Your task to perform on an android device: check data usage Image 0: 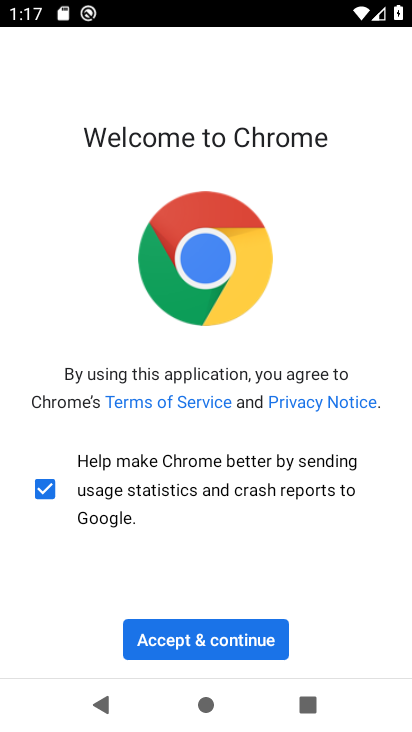
Step 0: press home button
Your task to perform on an android device: check data usage Image 1: 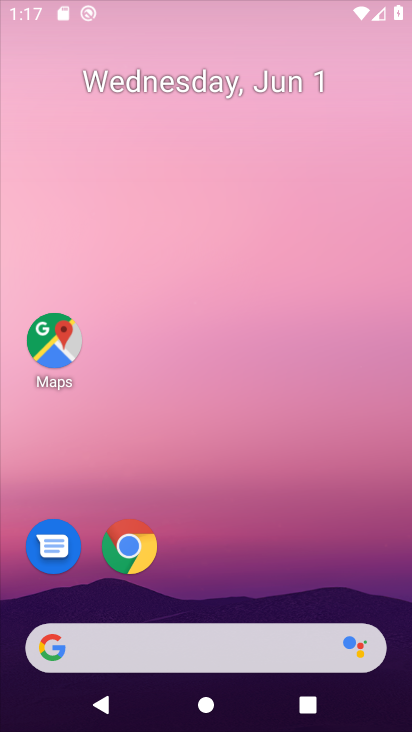
Step 1: drag from (146, 727) to (162, 118)
Your task to perform on an android device: check data usage Image 2: 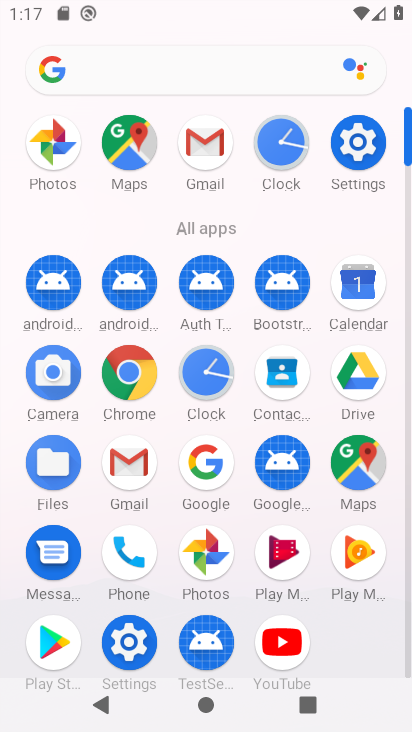
Step 2: click (365, 162)
Your task to perform on an android device: check data usage Image 3: 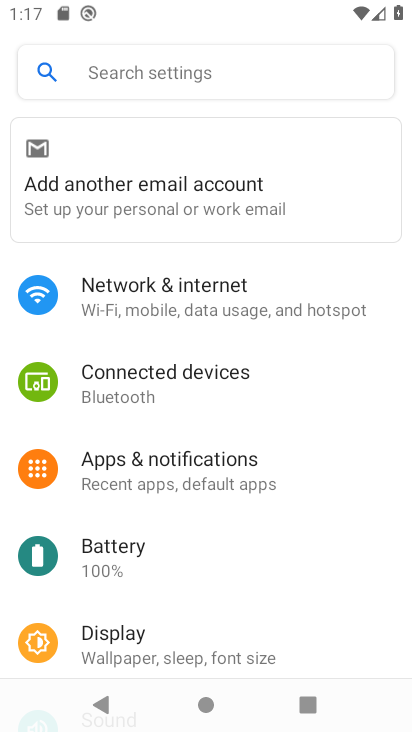
Step 3: drag from (202, 617) to (226, 247)
Your task to perform on an android device: check data usage Image 4: 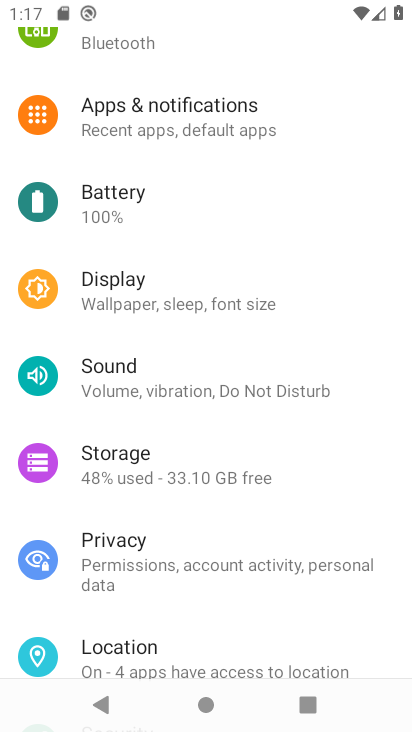
Step 4: drag from (248, 186) to (226, 681)
Your task to perform on an android device: check data usage Image 5: 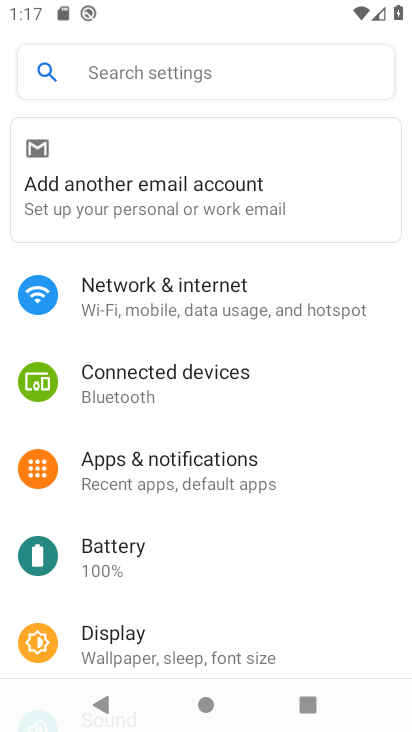
Step 5: click (225, 319)
Your task to perform on an android device: check data usage Image 6: 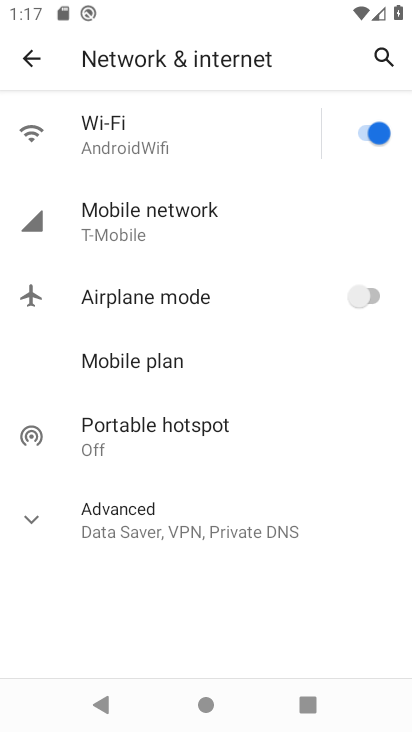
Step 6: click (110, 235)
Your task to perform on an android device: check data usage Image 7: 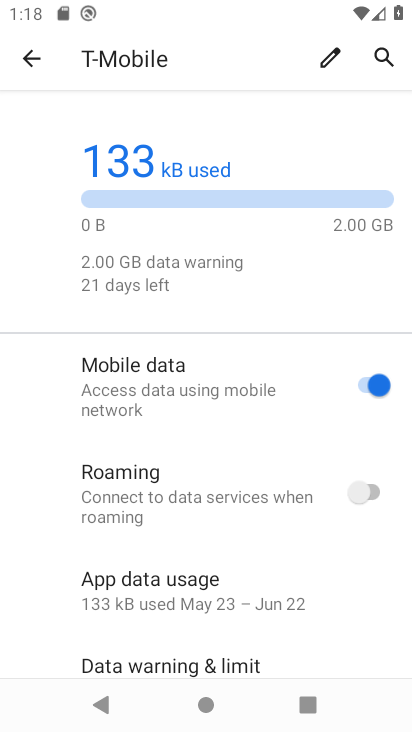
Step 7: drag from (348, 637) to (359, 328)
Your task to perform on an android device: check data usage Image 8: 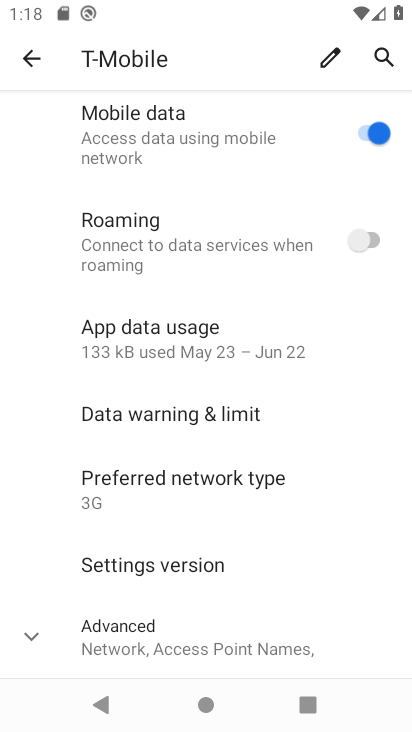
Step 8: click (203, 344)
Your task to perform on an android device: check data usage Image 9: 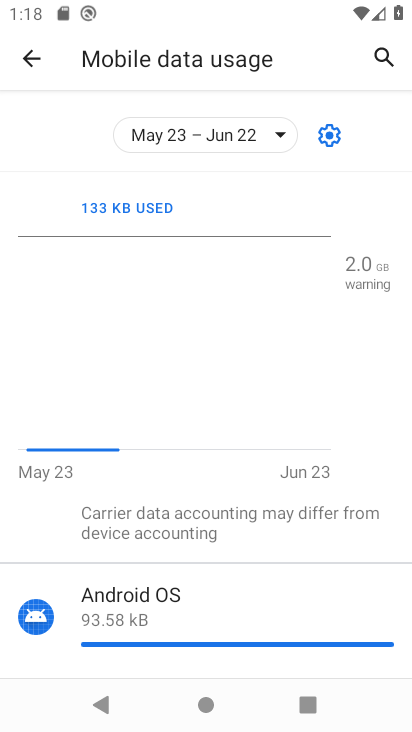
Step 9: task complete